Your task to perform on an android device: delete browsing data in the chrome app Image 0: 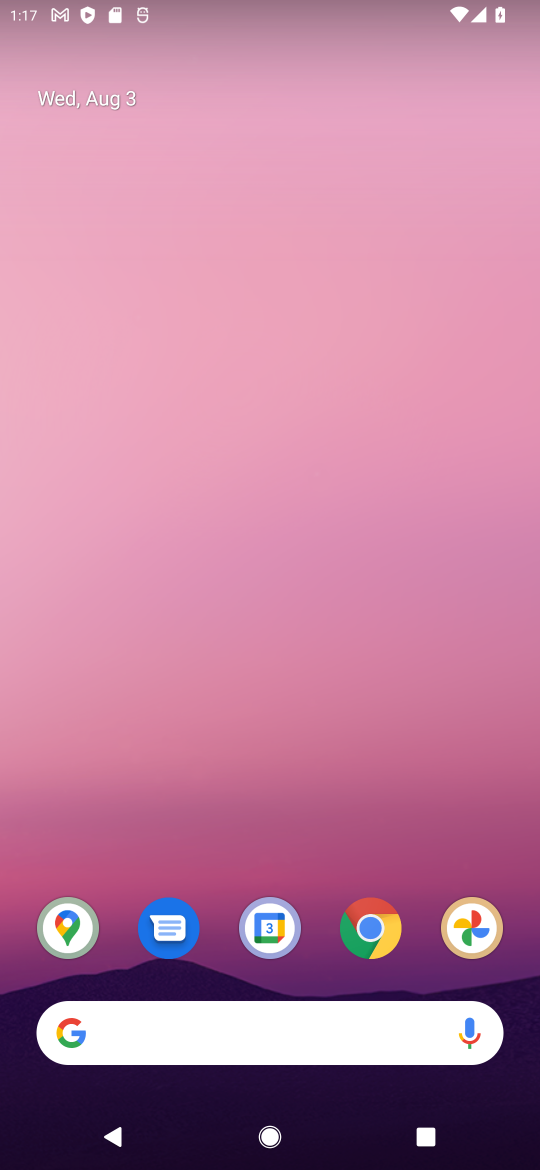
Step 0: press home button
Your task to perform on an android device: delete browsing data in the chrome app Image 1: 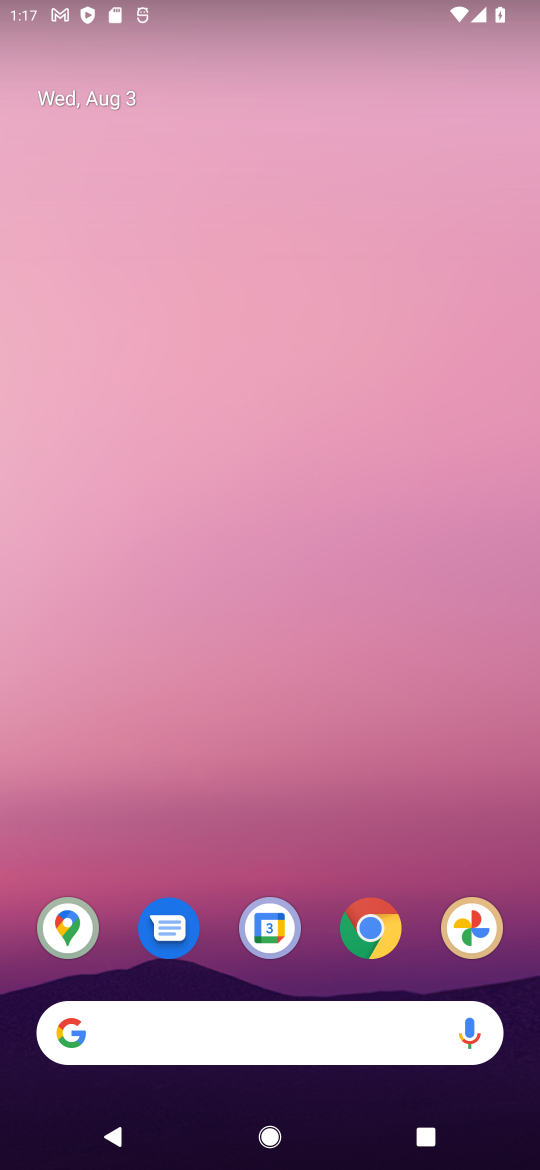
Step 1: click (376, 941)
Your task to perform on an android device: delete browsing data in the chrome app Image 2: 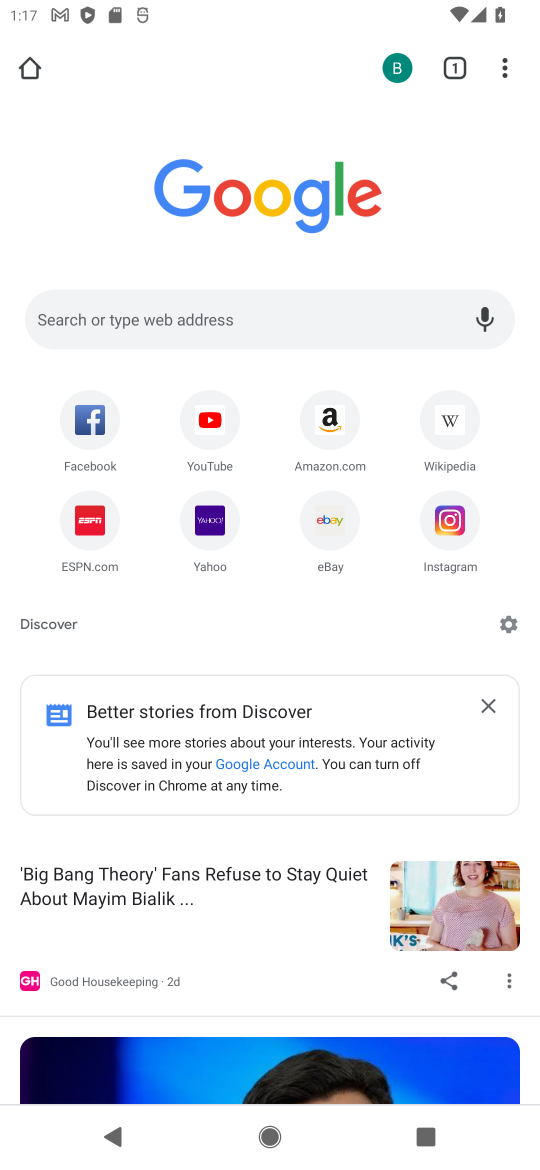
Step 2: click (505, 73)
Your task to perform on an android device: delete browsing data in the chrome app Image 3: 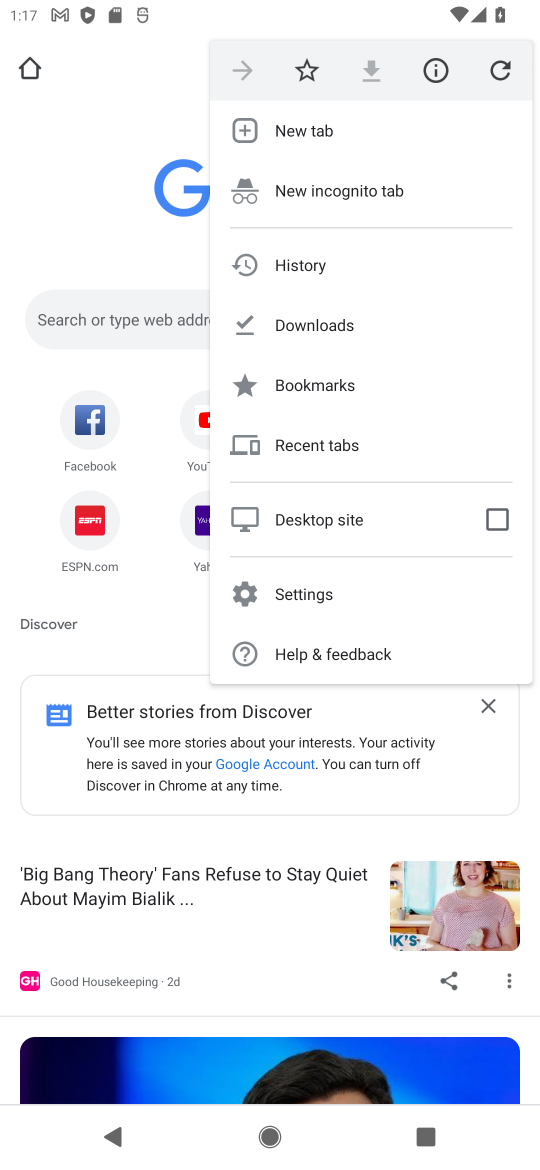
Step 3: click (288, 256)
Your task to perform on an android device: delete browsing data in the chrome app Image 4: 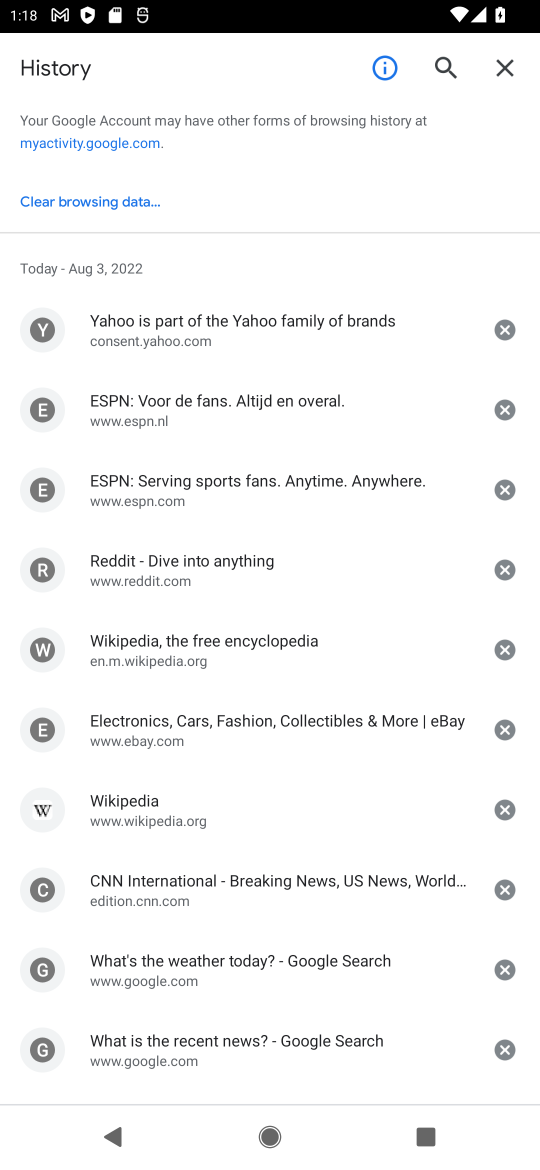
Step 4: click (120, 196)
Your task to perform on an android device: delete browsing data in the chrome app Image 5: 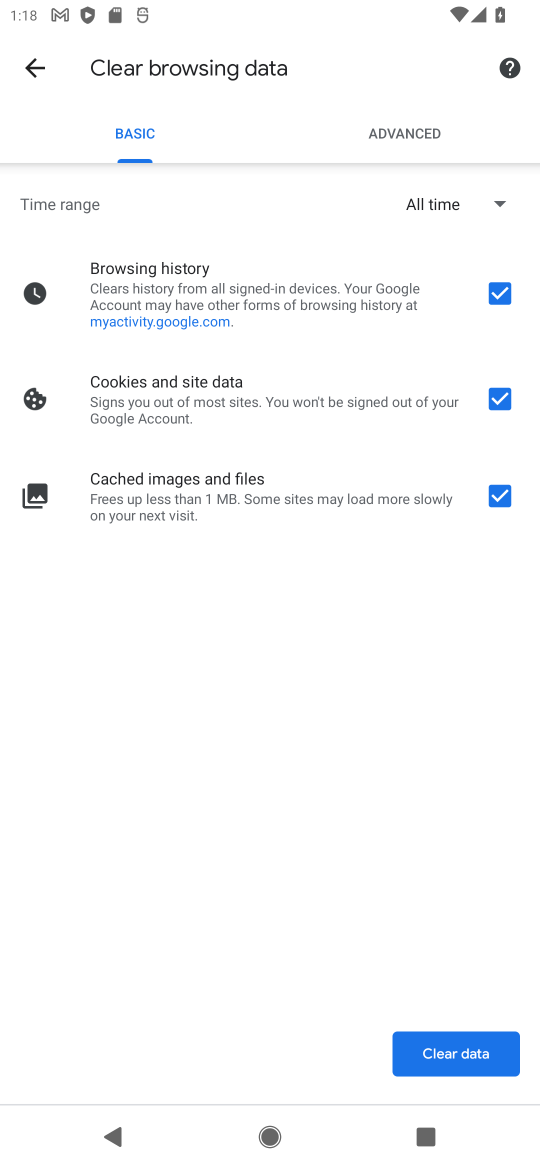
Step 5: click (455, 1056)
Your task to perform on an android device: delete browsing data in the chrome app Image 6: 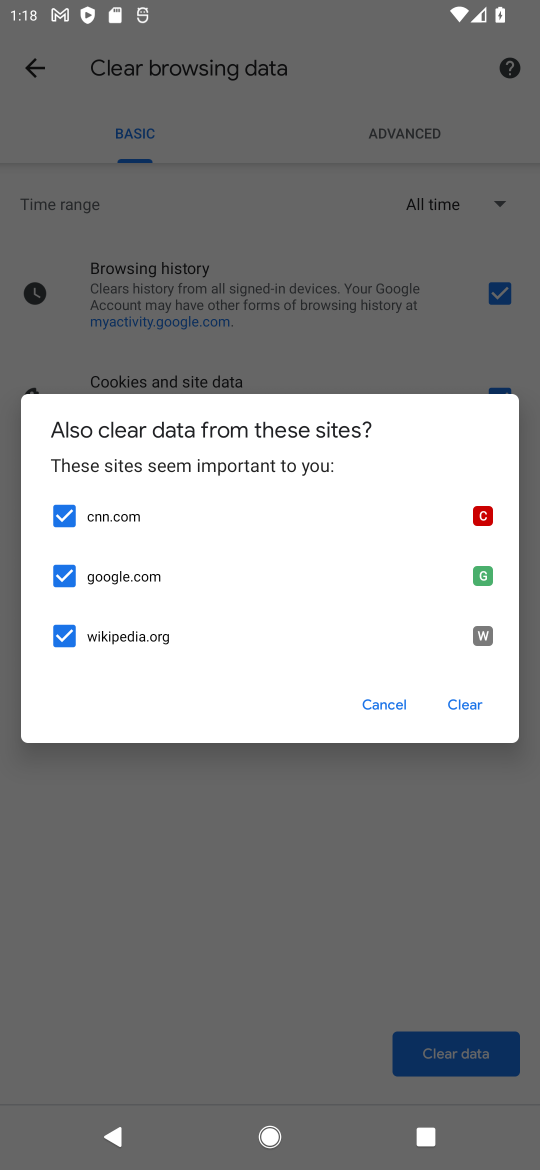
Step 6: click (458, 711)
Your task to perform on an android device: delete browsing data in the chrome app Image 7: 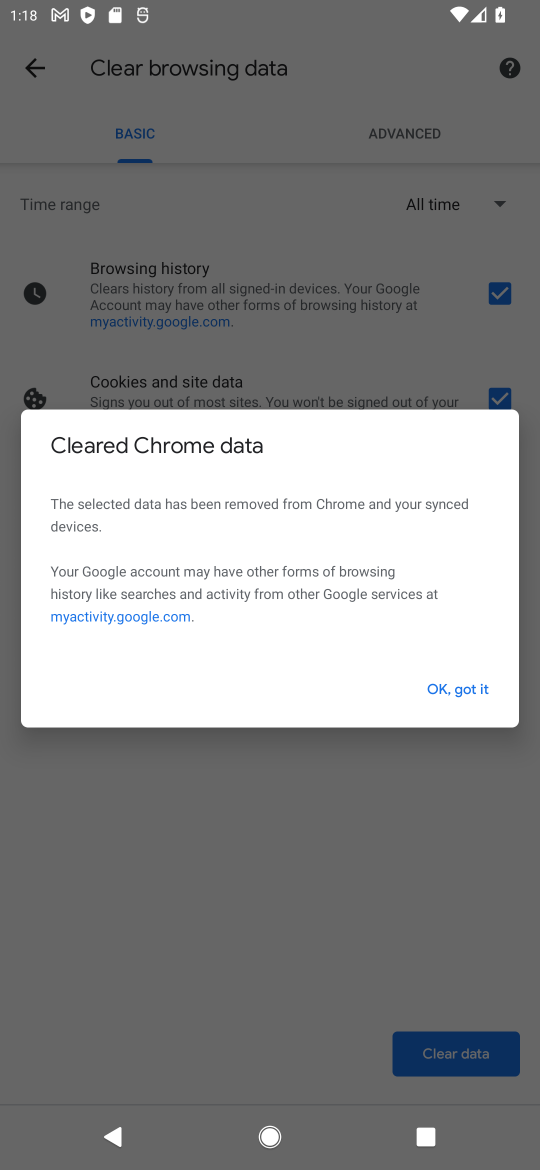
Step 7: click (457, 682)
Your task to perform on an android device: delete browsing data in the chrome app Image 8: 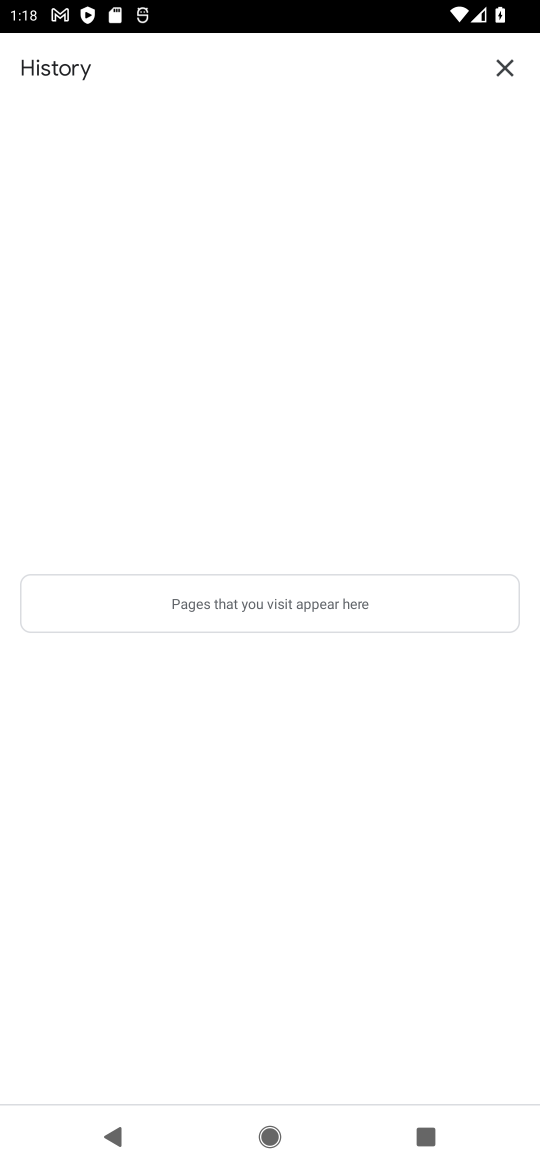
Step 8: task complete